Your task to perform on an android device: visit the assistant section in the google photos Image 0: 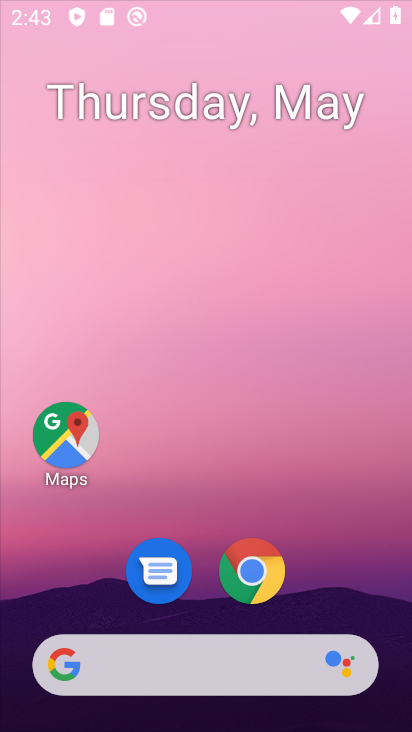
Step 0: click (195, 123)
Your task to perform on an android device: visit the assistant section in the google photos Image 1: 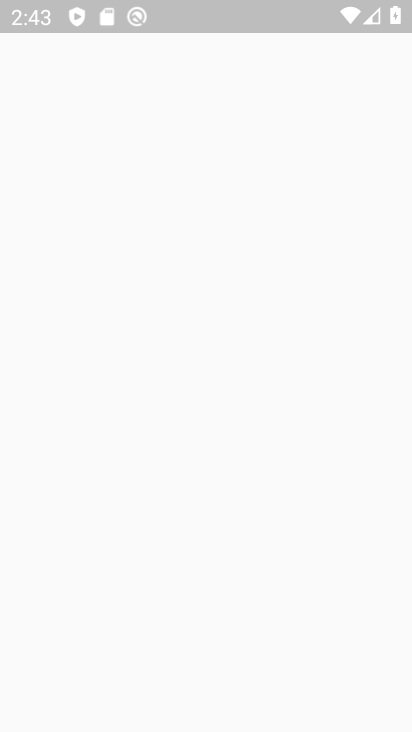
Step 1: press home button
Your task to perform on an android device: visit the assistant section in the google photos Image 2: 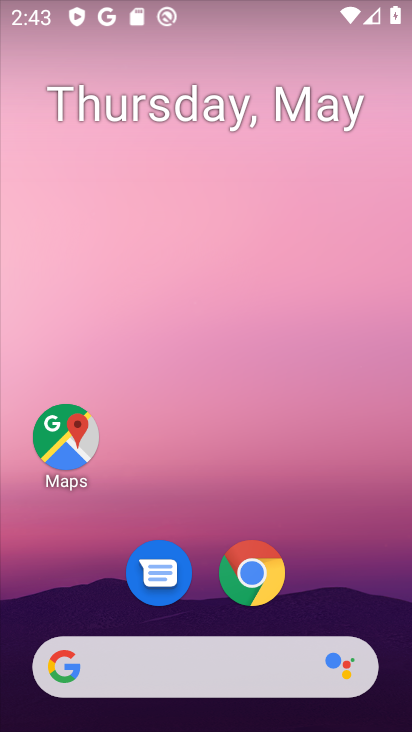
Step 2: drag from (290, 640) to (401, 49)
Your task to perform on an android device: visit the assistant section in the google photos Image 3: 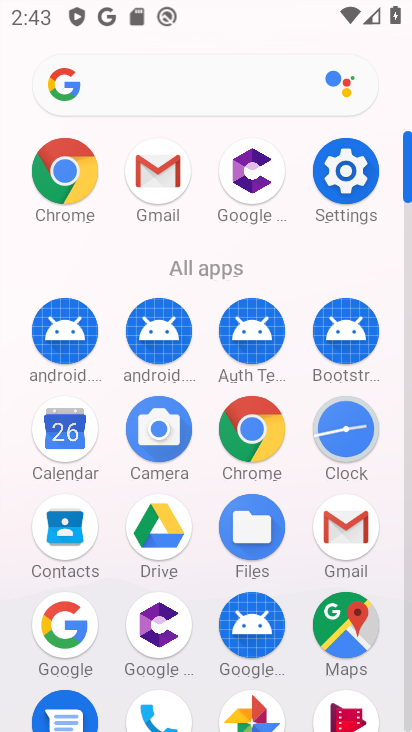
Step 3: drag from (242, 601) to (290, 355)
Your task to perform on an android device: visit the assistant section in the google photos Image 4: 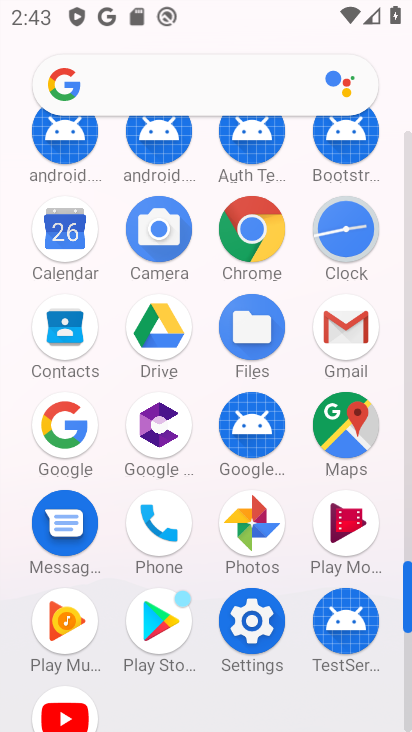
Step 4: click (238, 532)
Your task to perform on an android device: visit the assistant section in the google photos Image 5: 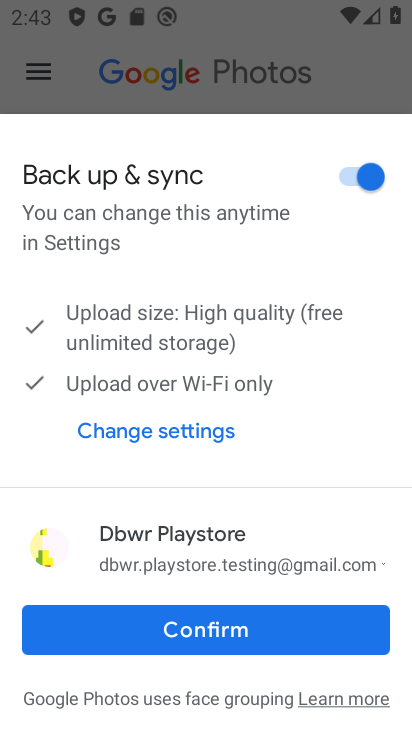
Step 5: click (275, 651)
Your task to perform on an android device: visit the assistant section in the google photos Image 6: 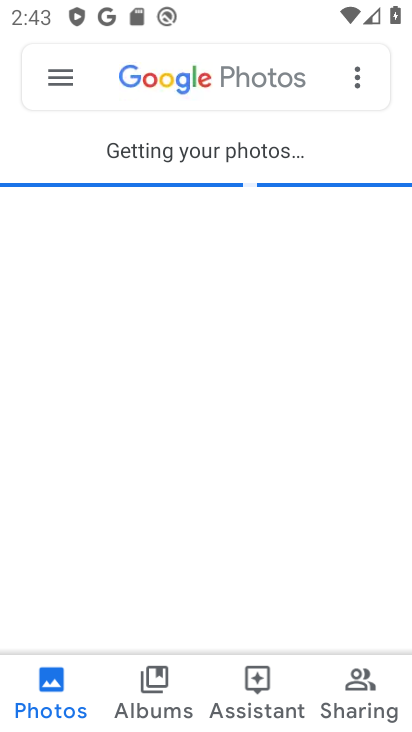
Step 6: click (285, 686)
Your task to perform on an android device: visit the assistant section in the google photos Image 7: 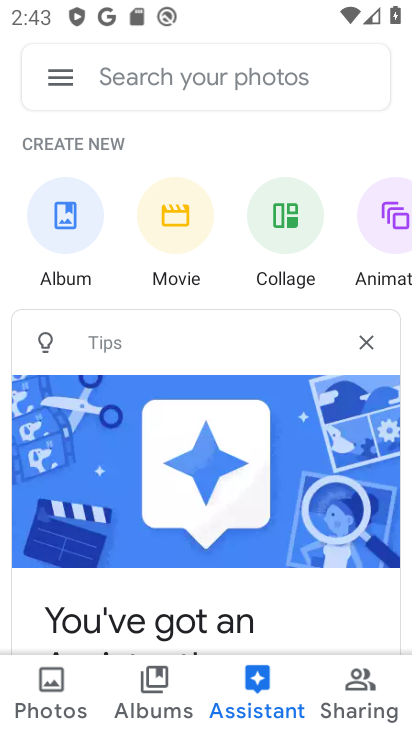
Step 7: task complete